Your task to perform on an android device: refresh tabs in the chrome app Image 0: 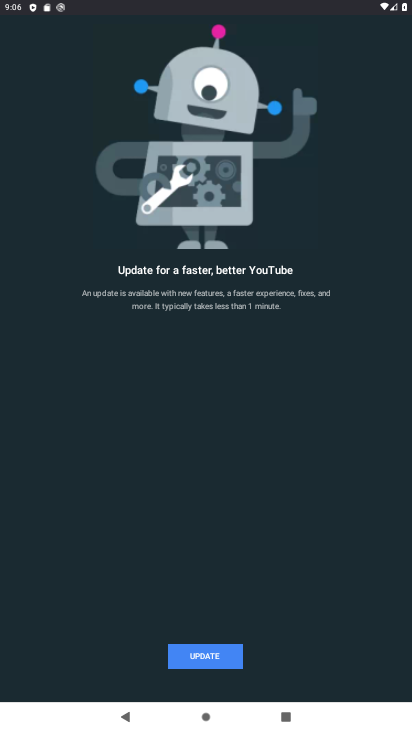
Step 0: press home button
Your task to perform on an android device: refresh tabs in the chrome app Image 1: 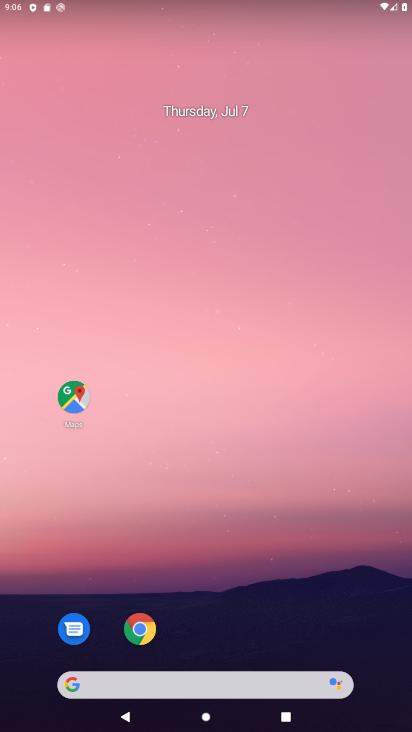
Step 1: drag from (293, 533) to (252, 106)
Your task to perform on an android device: refresh tabs in the chrome app Image 2: 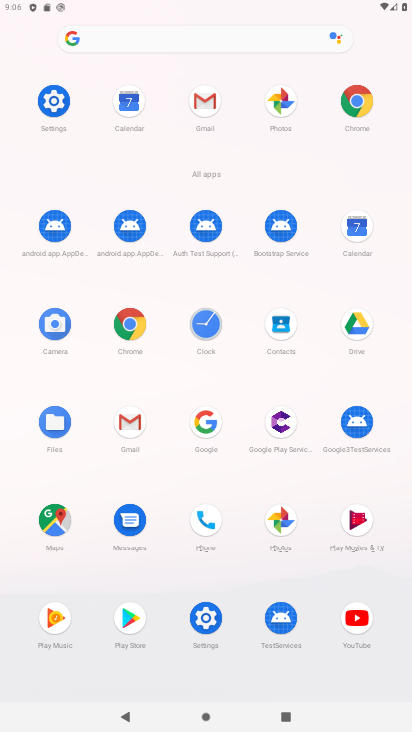
Step 2: click (361, 100)
Your task to perform on an android device: refresh tabs in the chrome app Image 3: 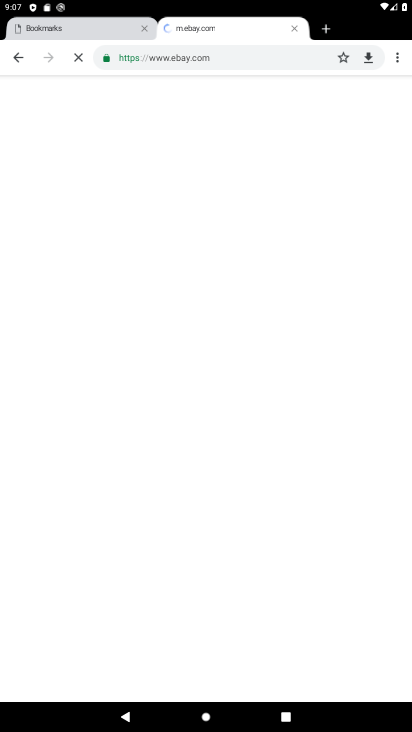
Step 3: click (395, 56)
Your task to perform on an android device: refresh tabs in the chrome app Image 4: 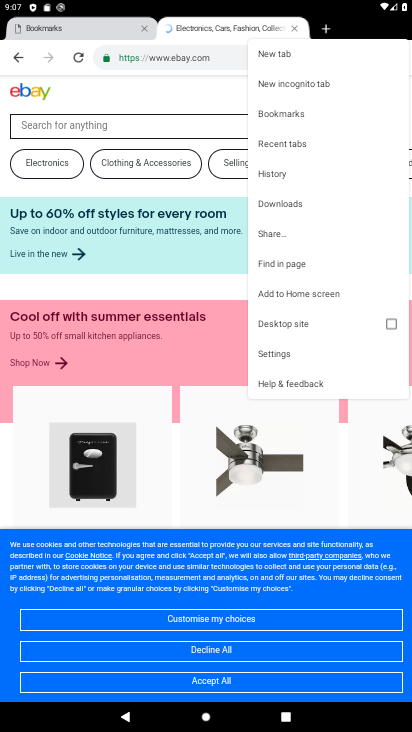
Step 4: click (76, 52)
Your task to perform on an android device: refresh tabs in the chrome app Image 5: 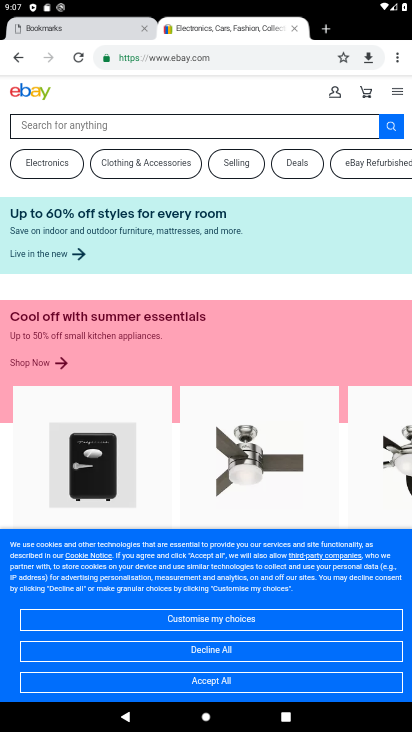
Step 5: task complete